Your task to perform on an android device: Go to network settings Image 0: 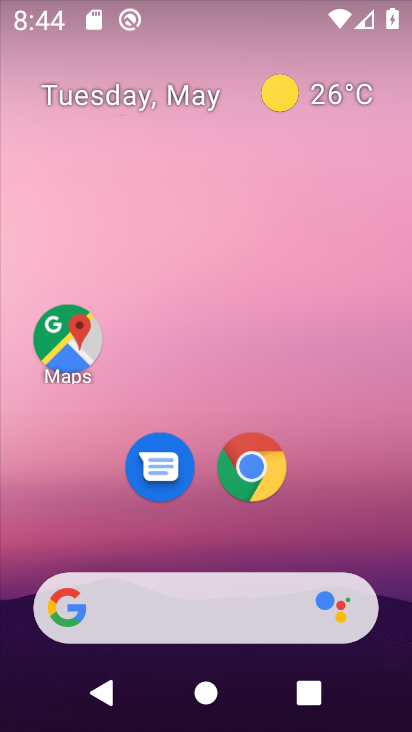
Step 0: drag from (397, 680) to (320, 152)
Your task to perform on an android device: Go to network settings Image 1: 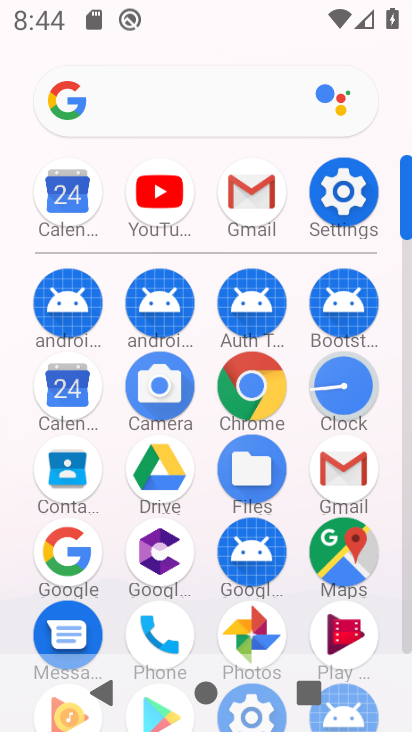
Step 1: click (336, 188)
Your task to perform on an android device: Go to network settings Image 2: 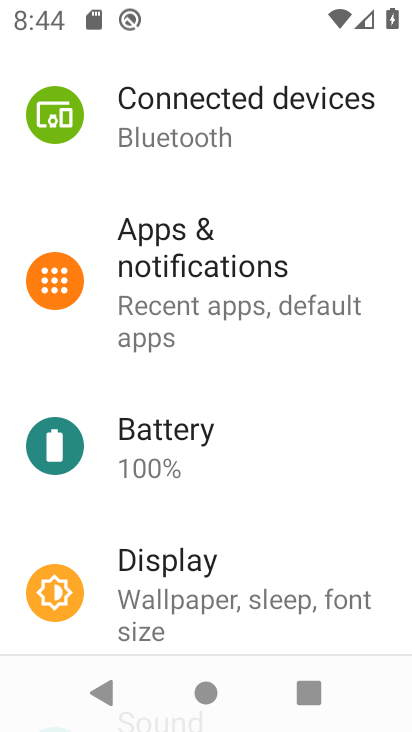
Step 2: drag from (293, 162) to (275, 567)
Your task to perform on an android device: Go to network settings Image 3: 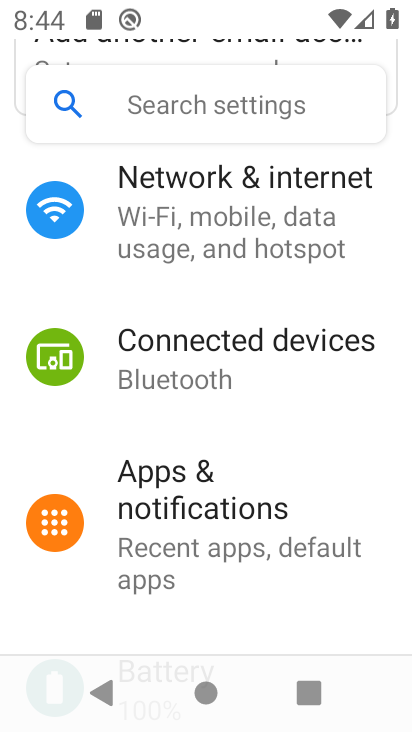
Step 3: click (188, 176)
Your task to perform on an android device: Go to network settings Image 4: 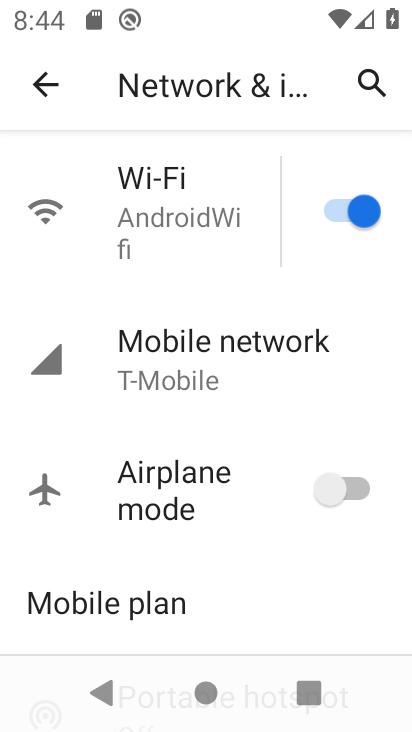
Step 4: click (222, 342)
Your task to perform on an android device: Go to network settings Image 5: 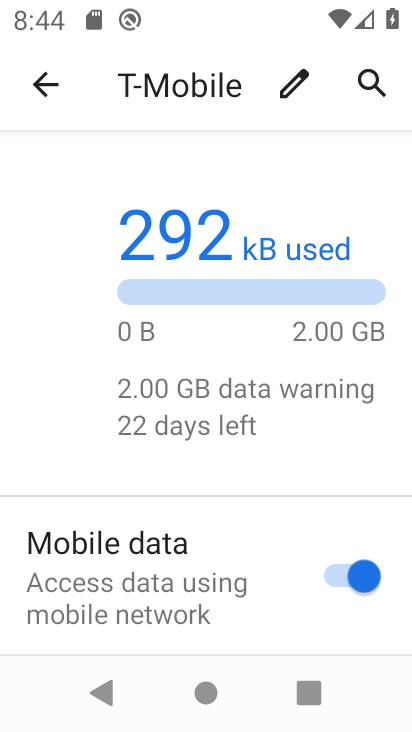
Step 5: task complete